Your task to perform on an android device: allow cookies in the chrome app Image 0: 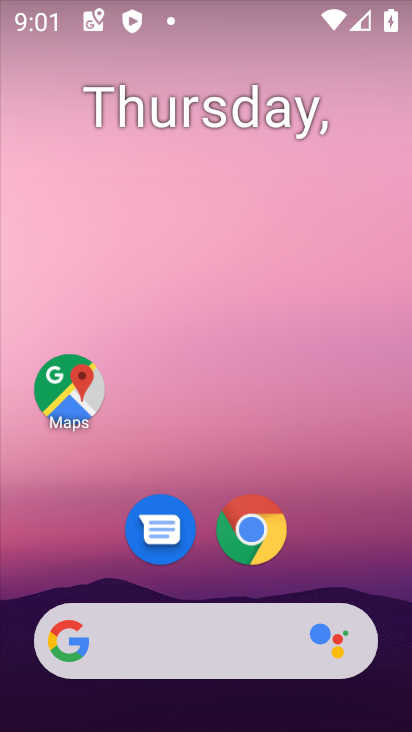
Step 0: click (260, 528)
Your task to perform on an android device: allow cookies in the chrome app Image 1: 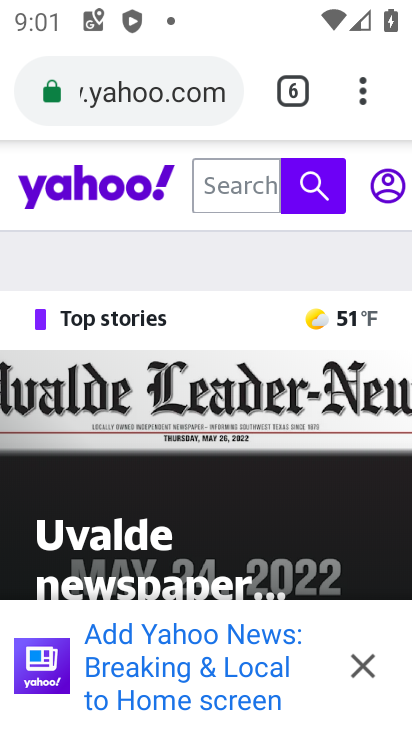
Step 1: click (361, 93)
Your task to perform on an android device: allow cookies in the chrome app Image 2: 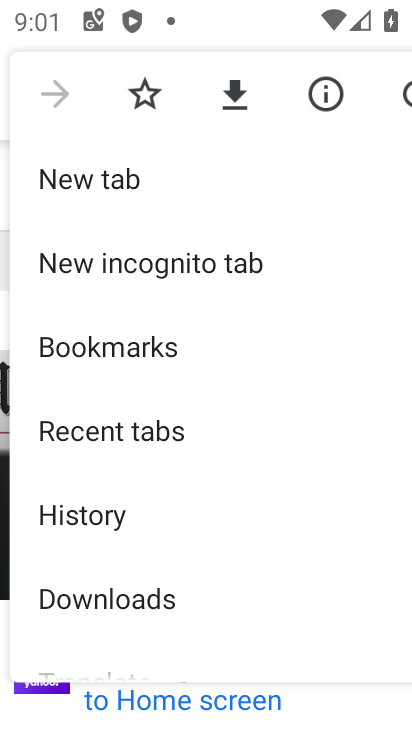
Step 2: drag from (176, 630) to (172, 182)
Your task to perform on an android device: allow cookies in the chrome app Image 3: 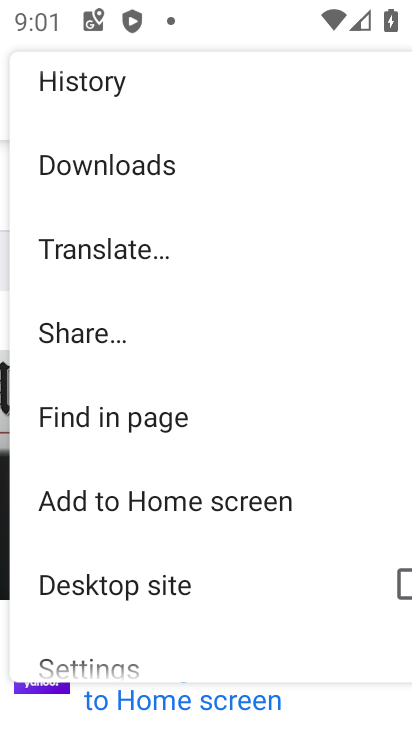
Step 3: drag from (168, 601) to (169, 107)
Your task to perform on an android device: allow cookies in the chrome app Image 4: 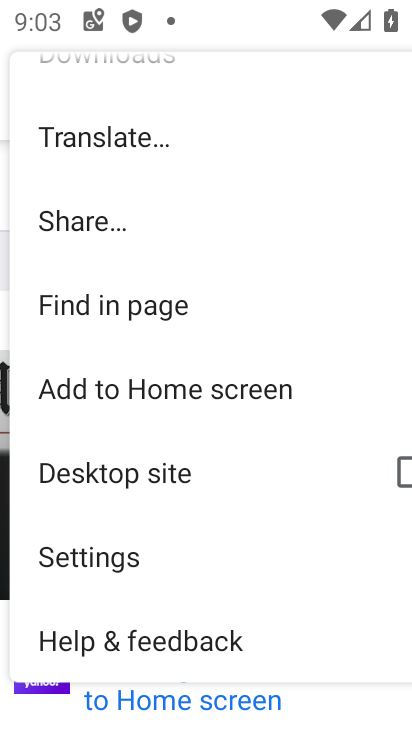
Step 4: click (88, 562)
Your task to perform on an android device: allow cookies in the chrome app Image 5: 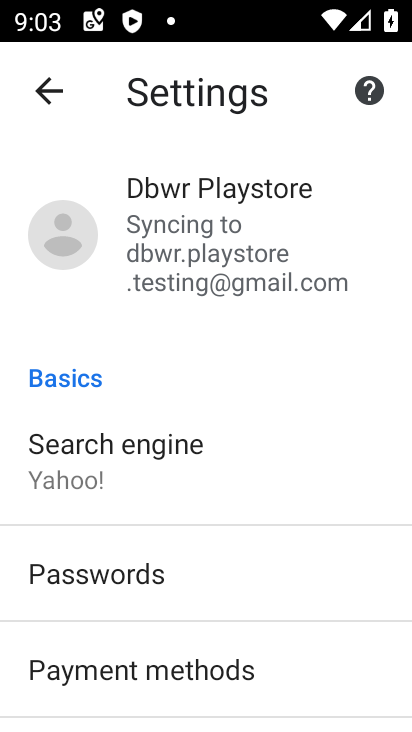
Step 5: drag from (276, 694) to (280, 141)
Your task to perform on an android device: allow cookies in the chrome app Image 6: 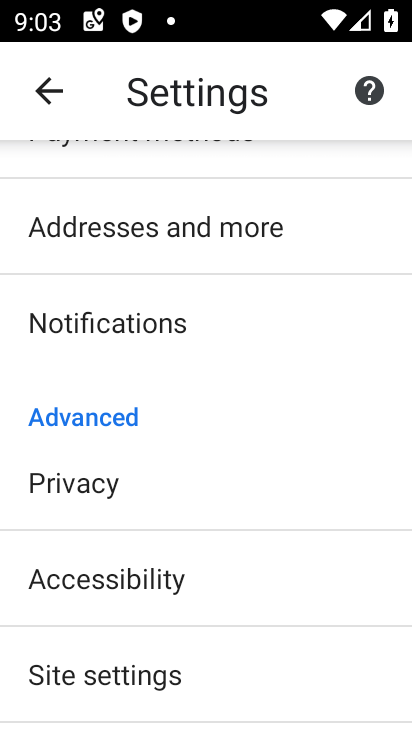
Step 6: click (149, 673)
Your task to perform on an android device: allow cookies in the chrome app Image 7: 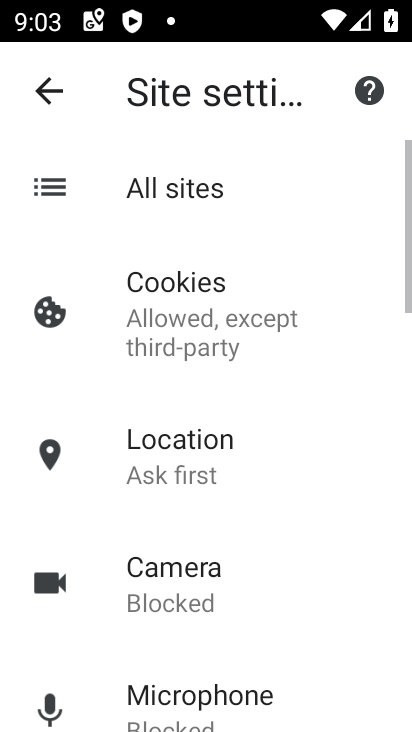
Step 7: click (169, 295)
Your task to perform on an android device: allow cookies in the chrome app Image 8: 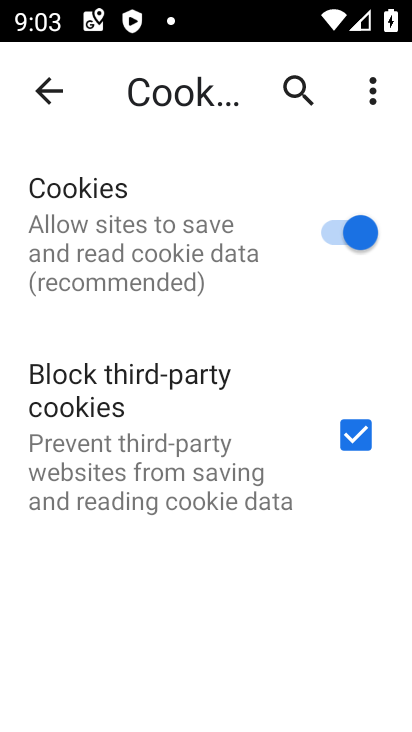
Step 8: task complete